Your task to perform on an android device: turn off notifications in google photos Image 0: 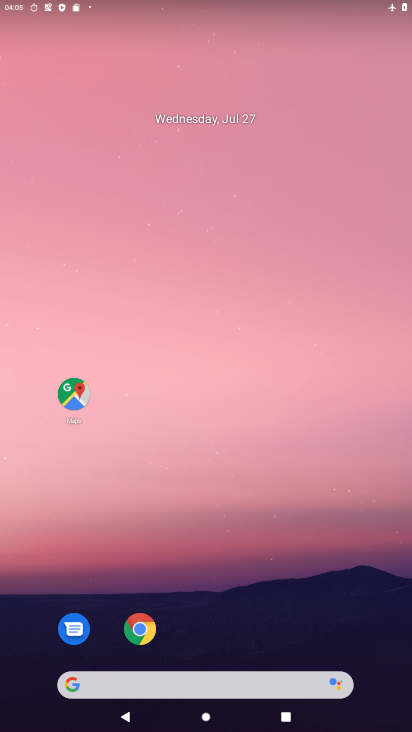
Step 0: drag from (287, 586) to (226, 0)
Your task to perform on an android device: turn off notifications in google photos Image 1: 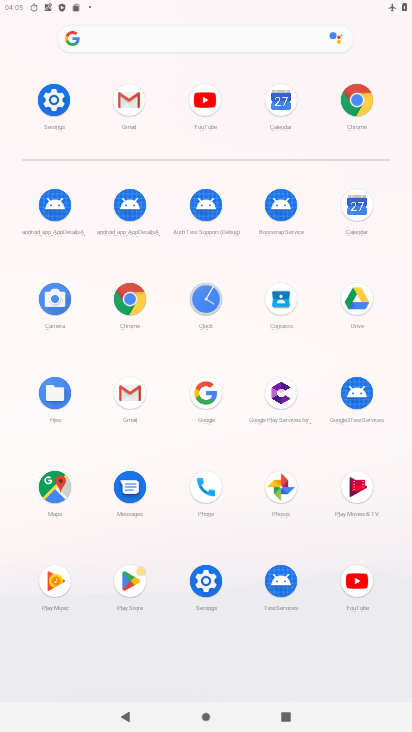
Step 1: click (282, 484)
Your task to perform on an android device: turn off notifications in google photos Image 2: 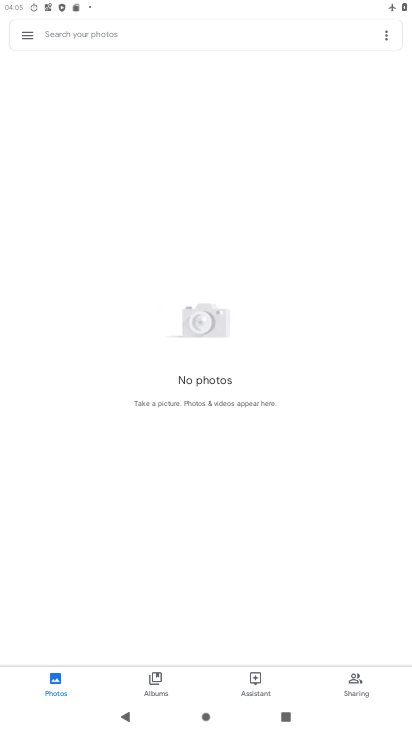
Step 2: click (29, 29)
Your task to perform on an android device: turn off notifications in google photos Image 3: 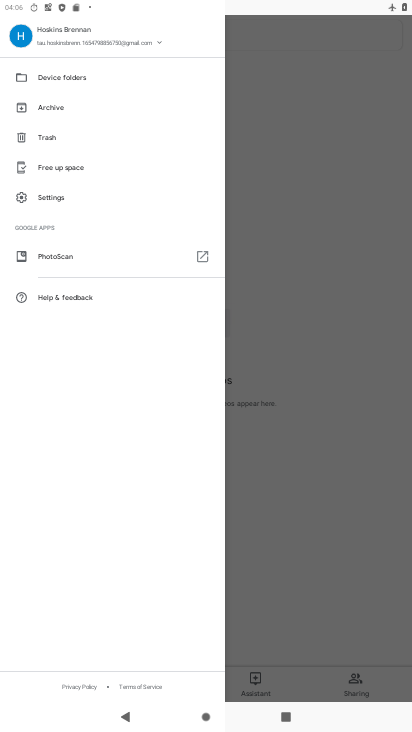
Step 3: click (58, 196)
Your task to perform on an android device: turn off notifications in google photos Image 4: 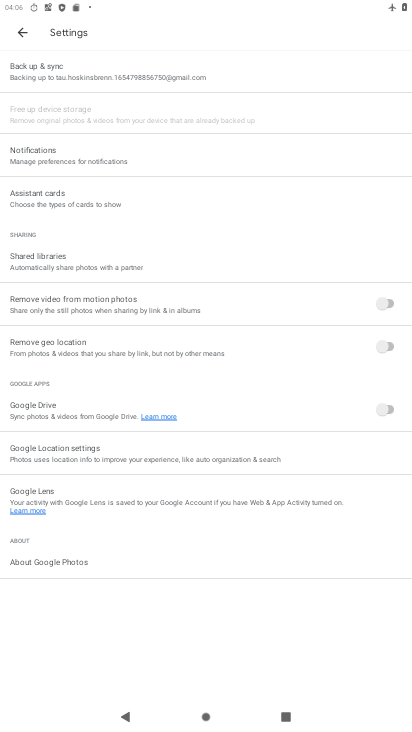
Step 4: click (123, 161)
Your task to perform on an android device: turn off notifications in google photos Image 5: 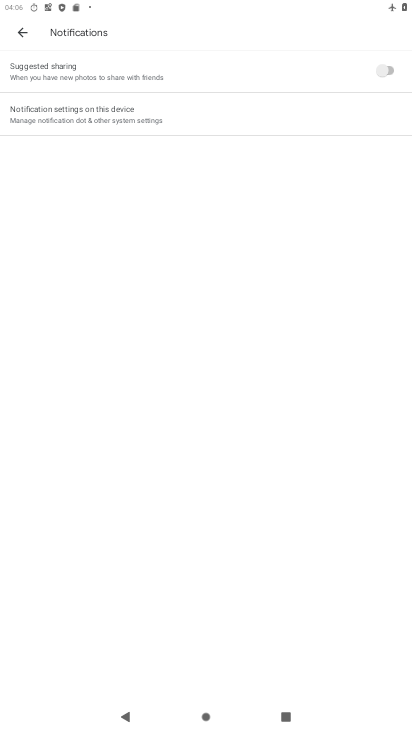
Step 5: click (185, 108)
Your task to perform on an android device: turn off notifications in google photos Image 6: 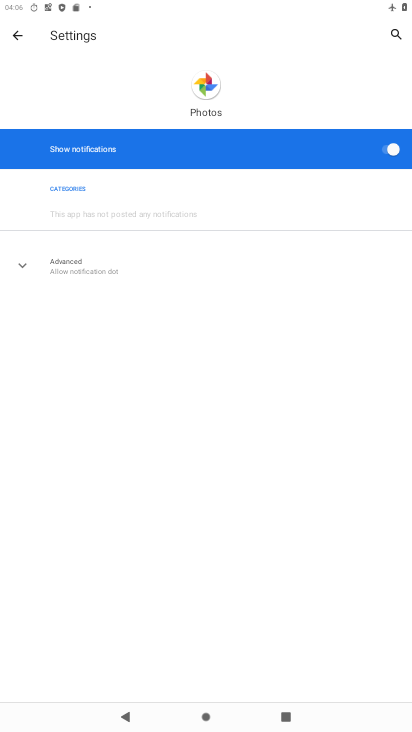
Step 6: click (397, 150)
Your task to perform on an android device: turn off notifications in google photos Image 7: 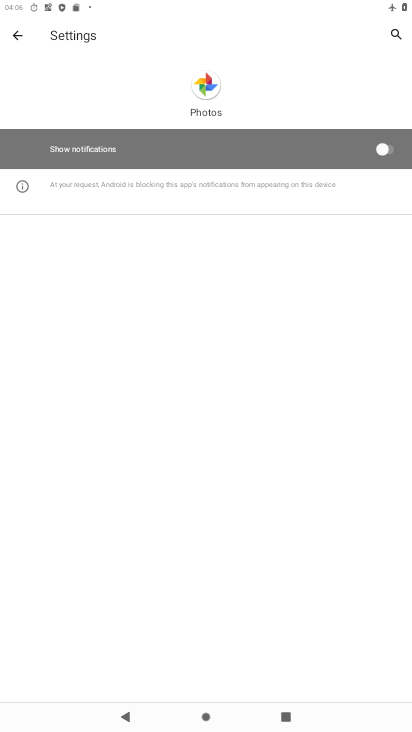
Step 7: task complete